Your task to perform on an android device: turn off notifications settings in the gmail app Image 0: 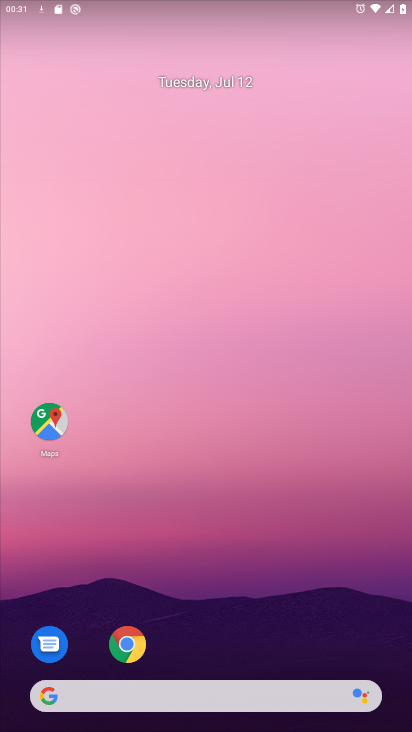
Step 0: click (212, 212)
Your task to perform on an android device: turn off notifications settings in the gmail app Image 1: 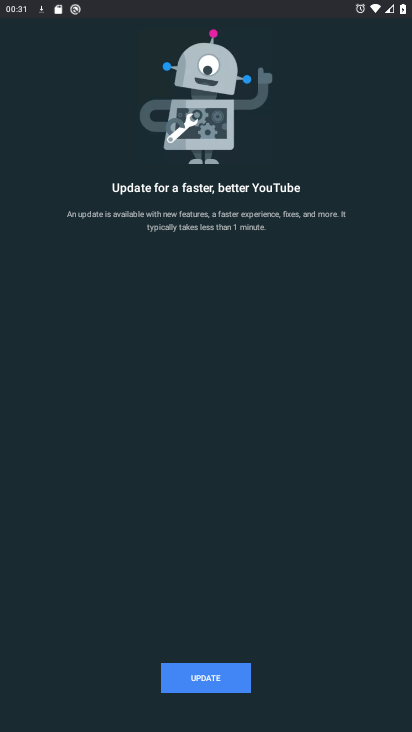
Step 1: press home button
Your task to perform on an android device: turn off notifications settings in the gmail app Image 2: 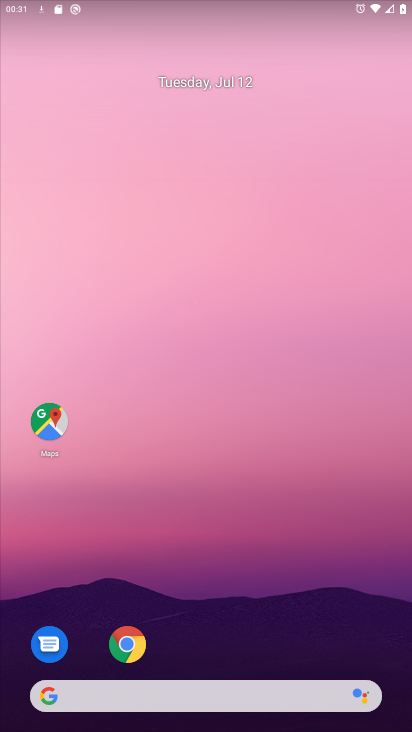
Step 2: drag from (234, 616) to (236, 142)
Your task to perform on an android device: turn off notifications settings in the gmail app Image 3: 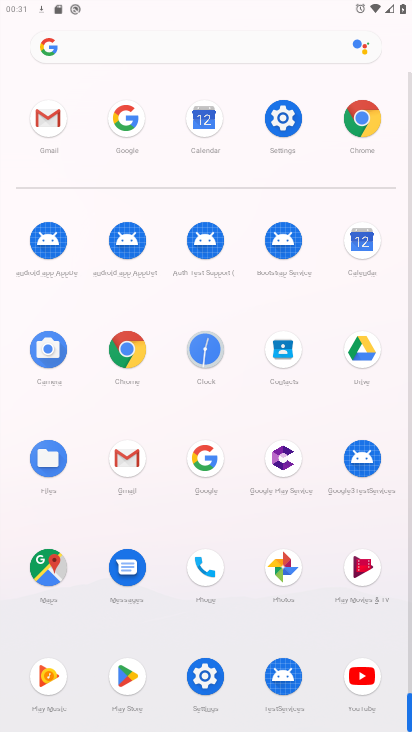
Step 3: click (286, 128)
Your task to perform on an android device: turn off notifications settings in the gmail app Image 4: 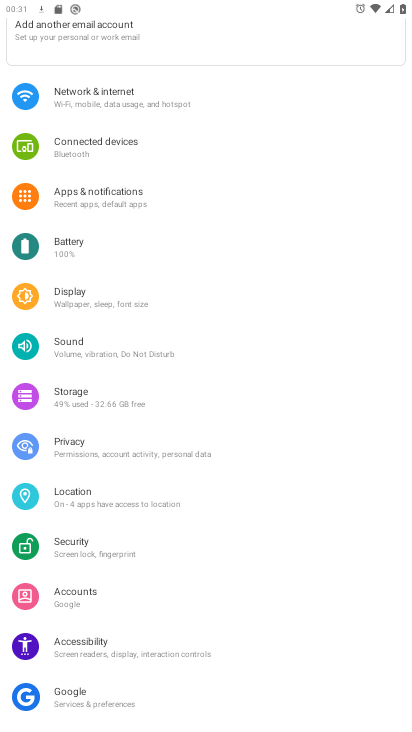
Step 4: press home button
Your task to perform on an android device: turn off notifications settings in the gmail app Image 5: 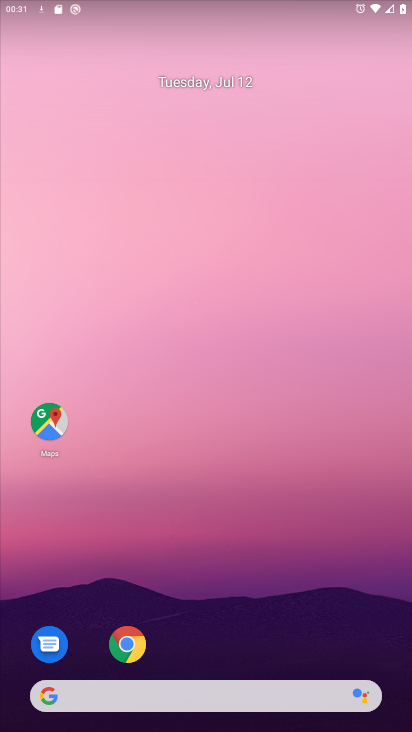
Step 5: drag from (225, 564) to (199, 125)
Your task to perform on an android device: turn off notifications settings in the gmail app Image 6: 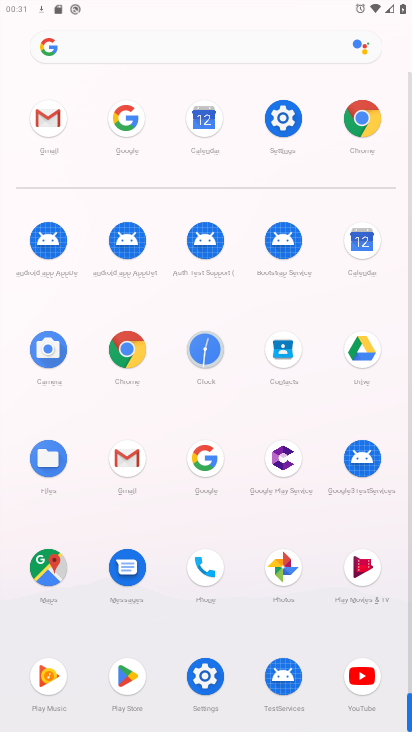
Step 6: click (40, 110)
Your task to perform on an android device: turn off notifications settings in the gmail app Image 7: 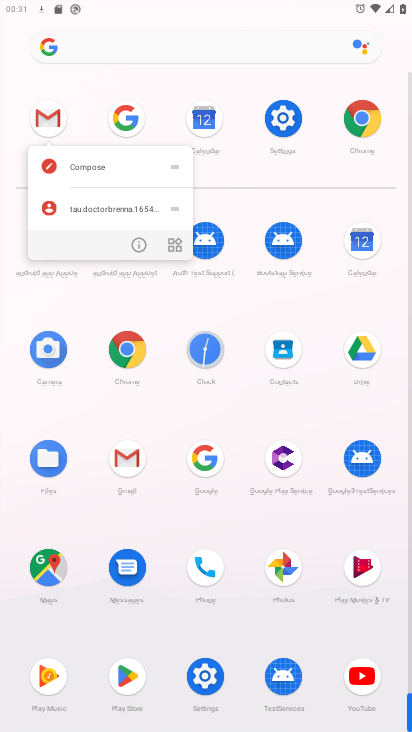
Step 7: click (48, 116)
Your task to perform on an android device: turn off notifications settings in the gmail app Image 8: 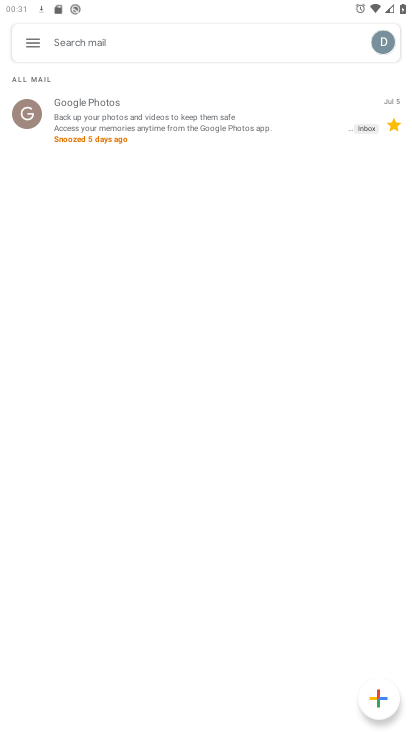
Step 8: click (23, 37)
Your task to perform on an android device: turn off notifications settings in the gmail app Image 9: 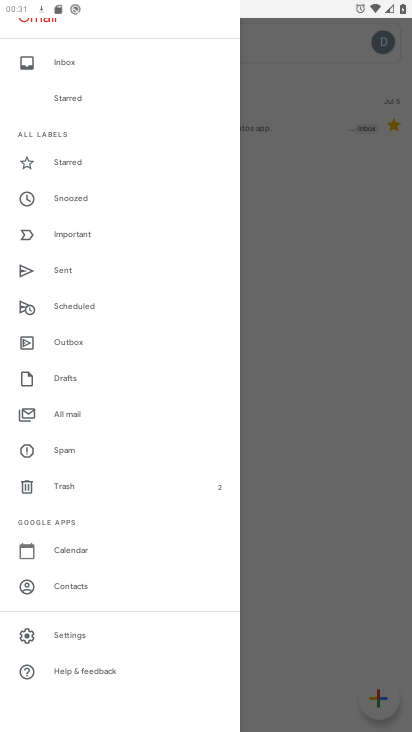
Step 9: click (75, 628)
Your task to perform on an android device: turn off notifications settings in the gmail app Image 10: 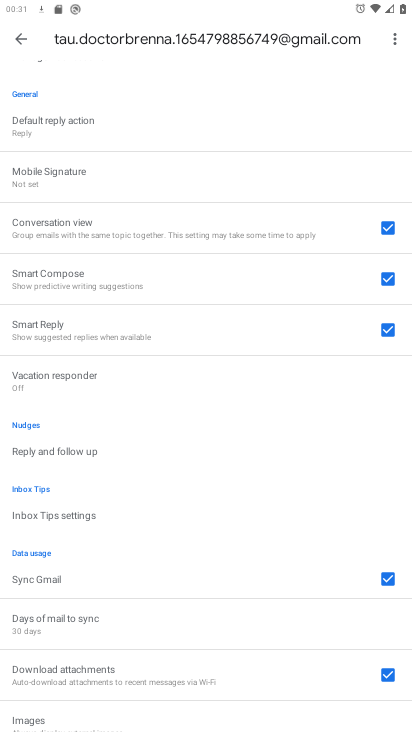
Step 10: drag from (108, 466) to (106, 166)
Your task to perform on an android device: turn off notifications settings in the gmail app Image 11: 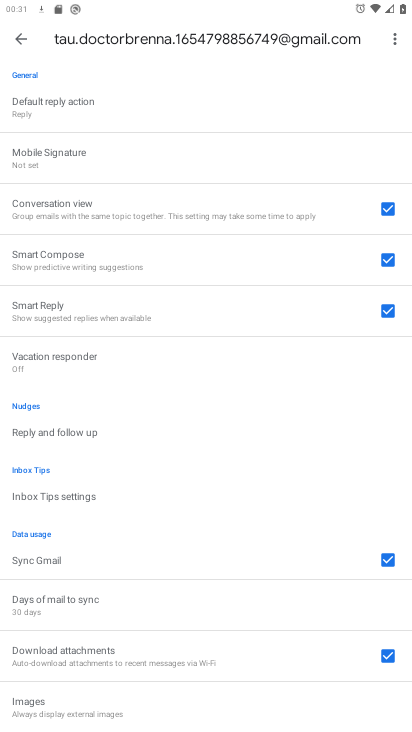
Step 11: click (29, 44)
Your task to perform on an android device: turn off notifications settings in the gmail app Image 12: 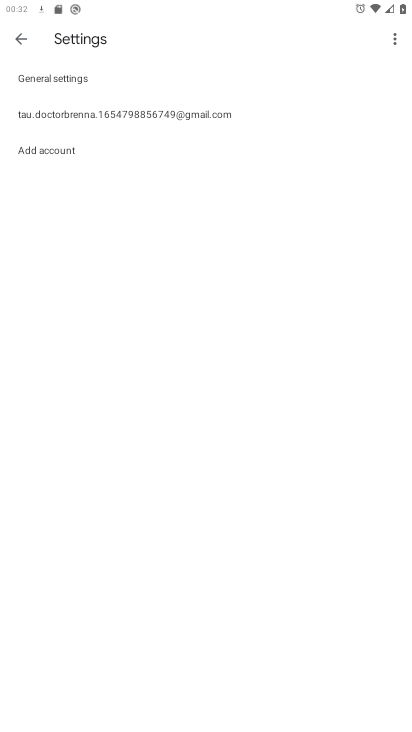
Step 12: click (22, 48)
Your task to perform on an android device: turn off notifications settings in the gmail app Image 13: 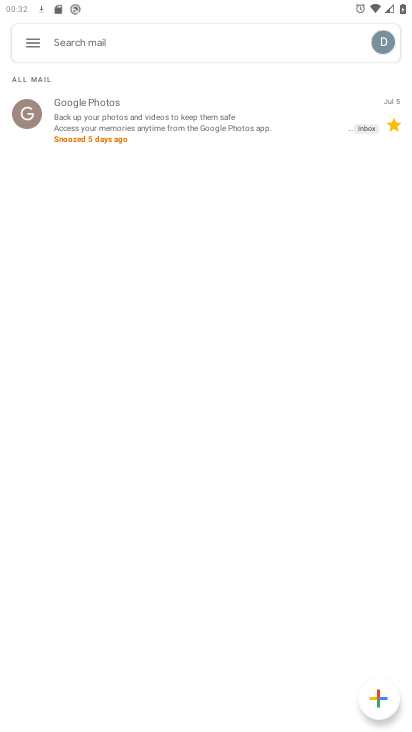
Step 13: click (34, 42)
Your task to perform on an android device: turn off notifications settings in the gmail app Image 14: 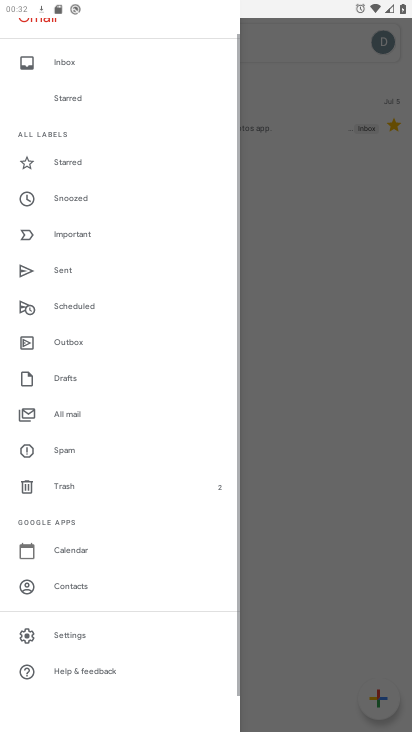
Step 14: click (90, 635)
Your task to perform on an android device: turn off notifications settings in the gmail app Image 15: 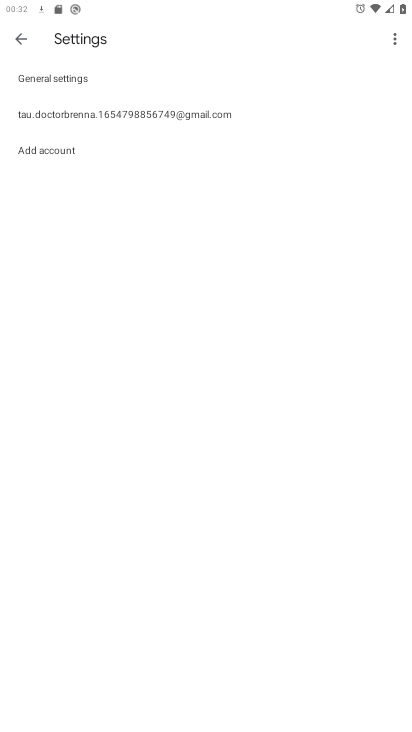
Step 15: click (98, 79)
Your task to perform on an android device: turn off notifications settings in the gmail app Image 16: 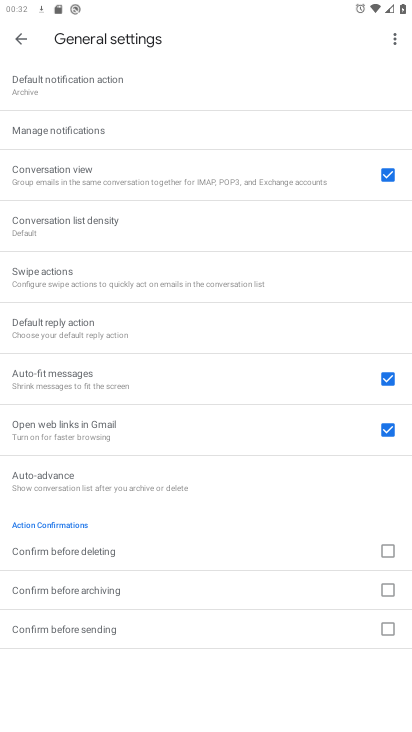
Step 16: click (89, 130)
Your task to perform on an android device: turn off notifications settings in the gmail app Image 17: 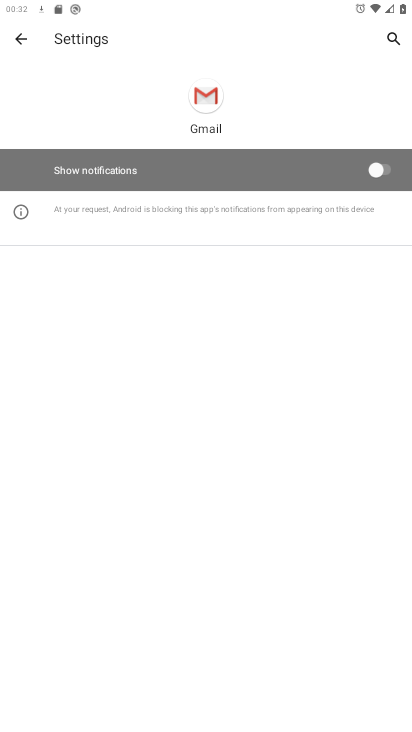
Step 17: task complete